Your task to perform on an android device: What's the weather? Image 0: 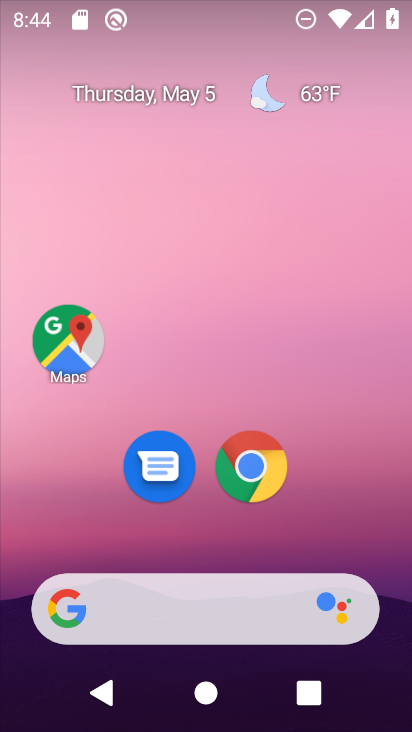
Step 0: click (323, 80)
Your task to perform on an android device: What's the weather? Image 1: 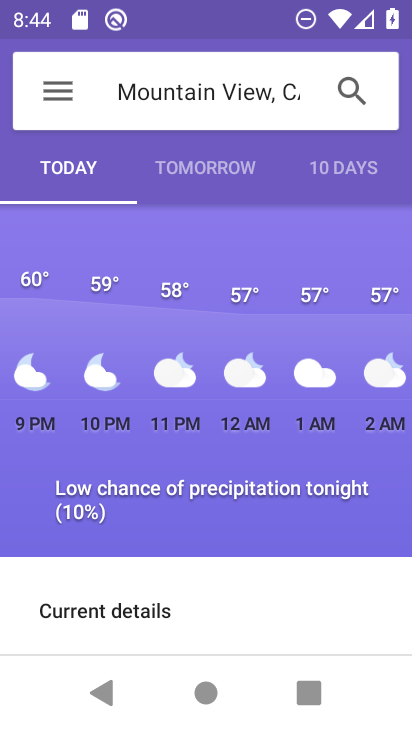
Step 1: task complete